Your task to perform on an android device: Show me popular games on the Play Store Image 0: 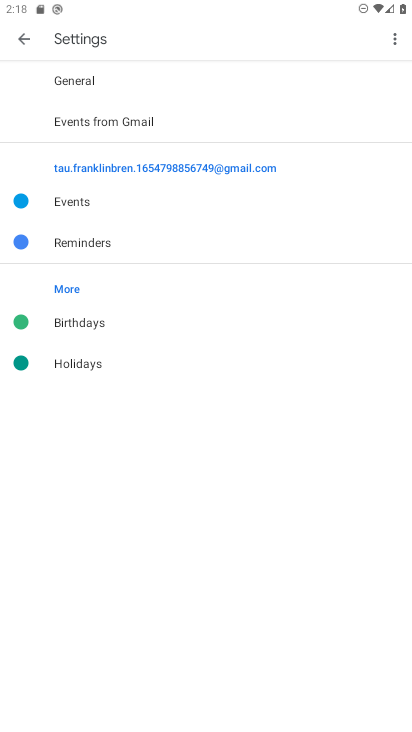
Step 0: press home button
Your task to perform on an android device: Show me popular games on the Play Store Image 1: 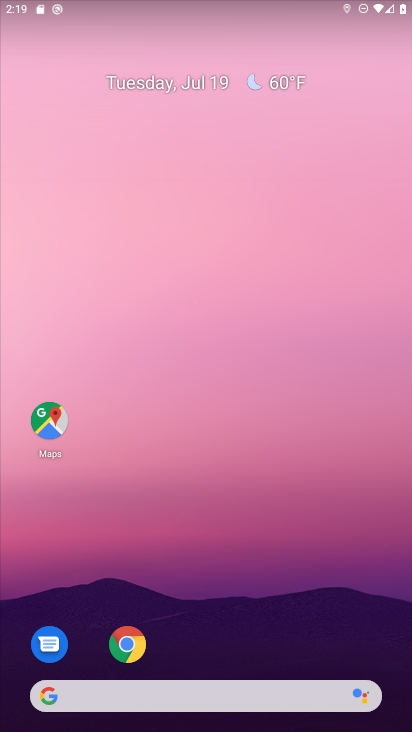
Step 1: drag from (183, 675) to (121, 80)
Your task to perform on an android device: Show me popular games on the Play Store Image 2: 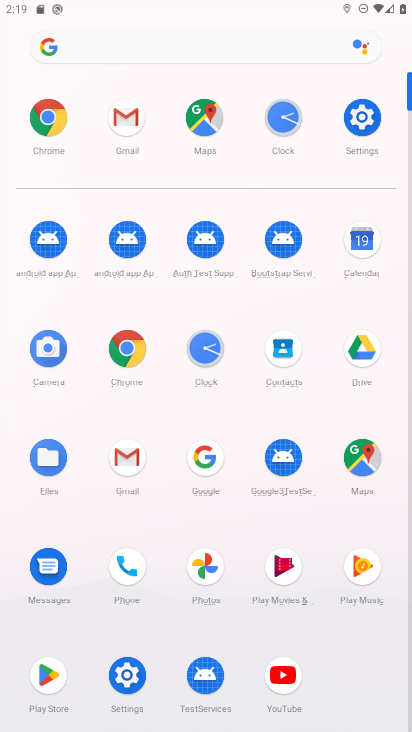
Step 2: click (47, 686)
Your task to perform on an android device: Show me popular games on the Play Store Image 3: 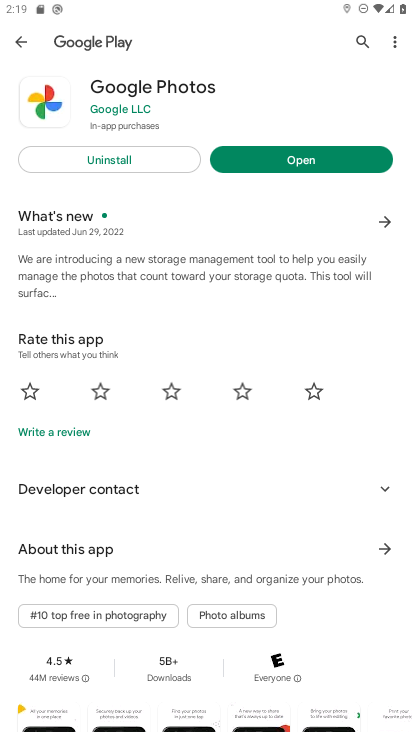
Step 3: click (14, 36)
Your task to perform on an android device: Show me popular games on the Play Store Image 4: 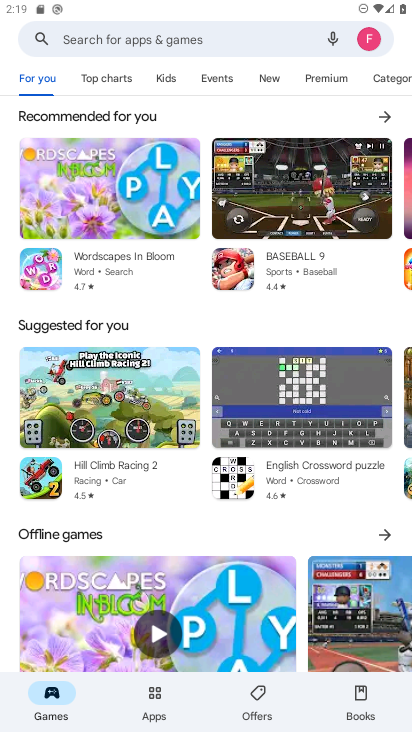
Step 4: task complete